Your task to perform on an android device: Open privacy settings Image 0: 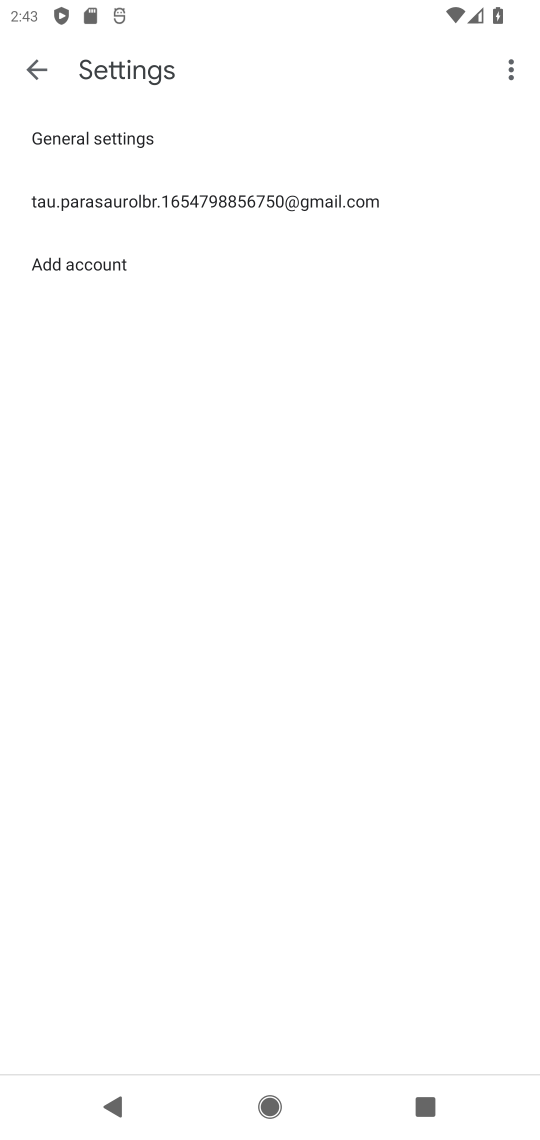
Step 0: press home button
Your task to perform on an android device: Open privacy settings Image 1: 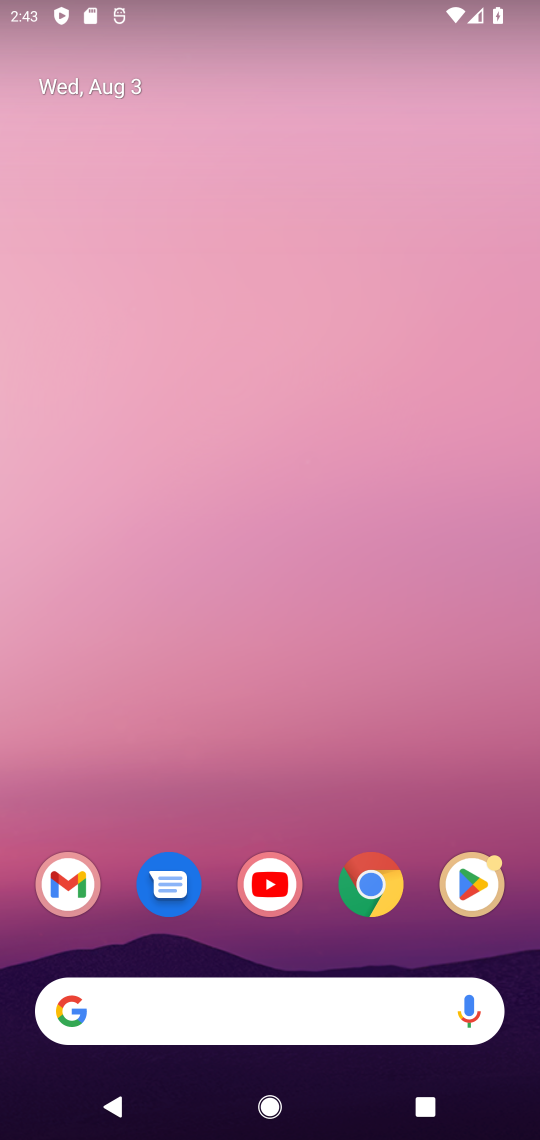
Step 1: drag from (217, 953) to (255, 180)
Your task to perform on an android device: Open privacy settings Image 2: 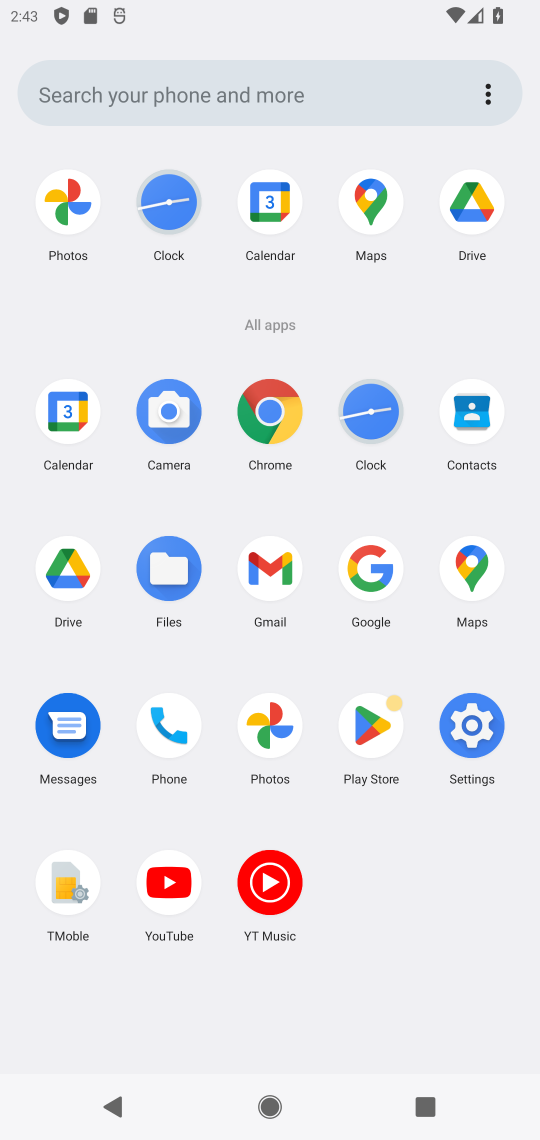
Step 2: click (486, 728)
Your task to perform on an android device: Open privacy settings Image 3: 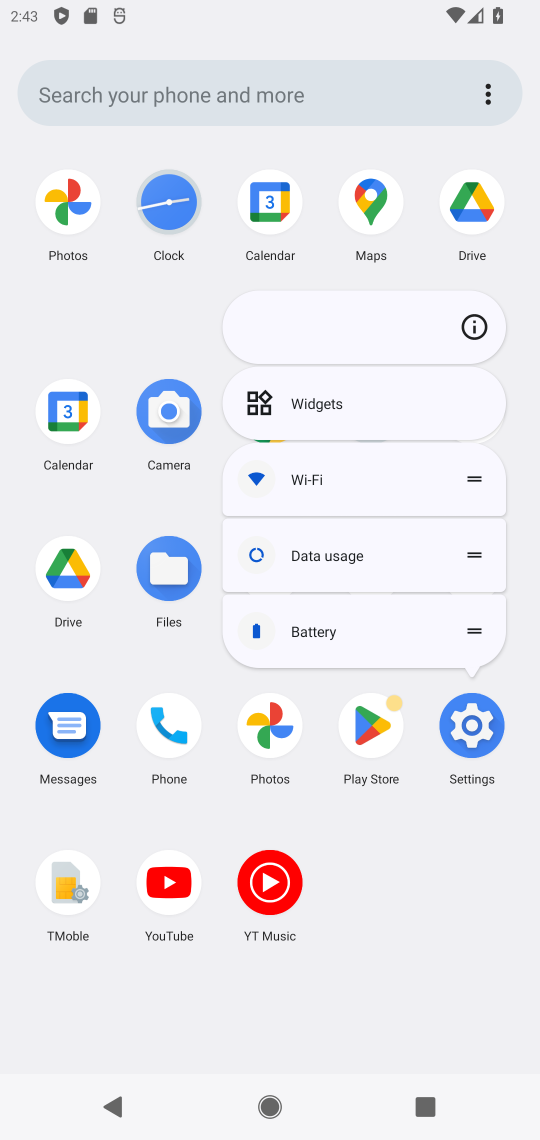
Step 3: click (475, 731)
Your task to perform on an android device: Open privacy settings Image 4: 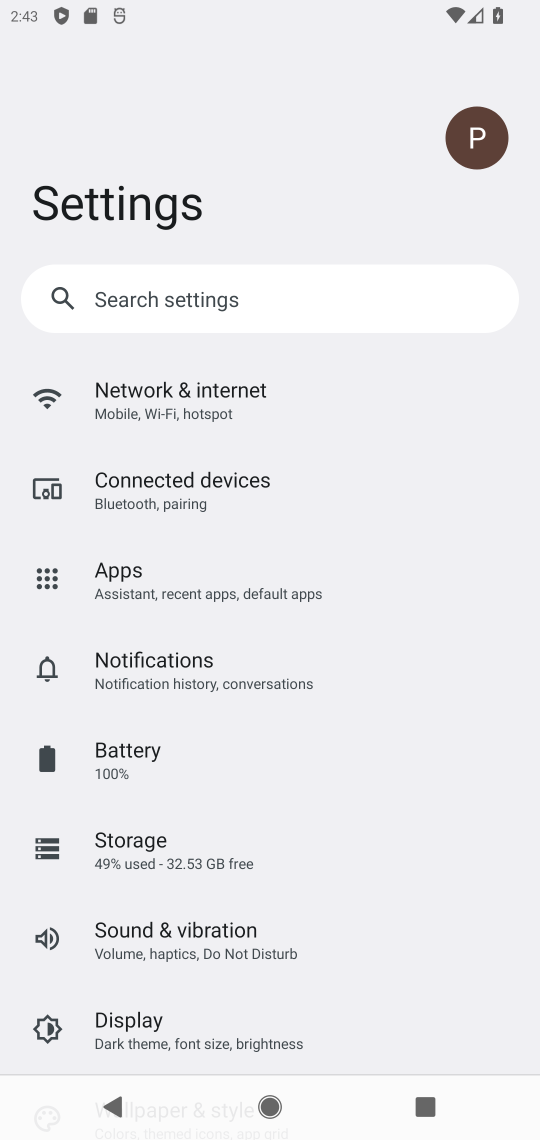
Step 4: drag from (187, 970) to (242, 532)
Your task to perform on an android device: Open privacy settings Image 5: 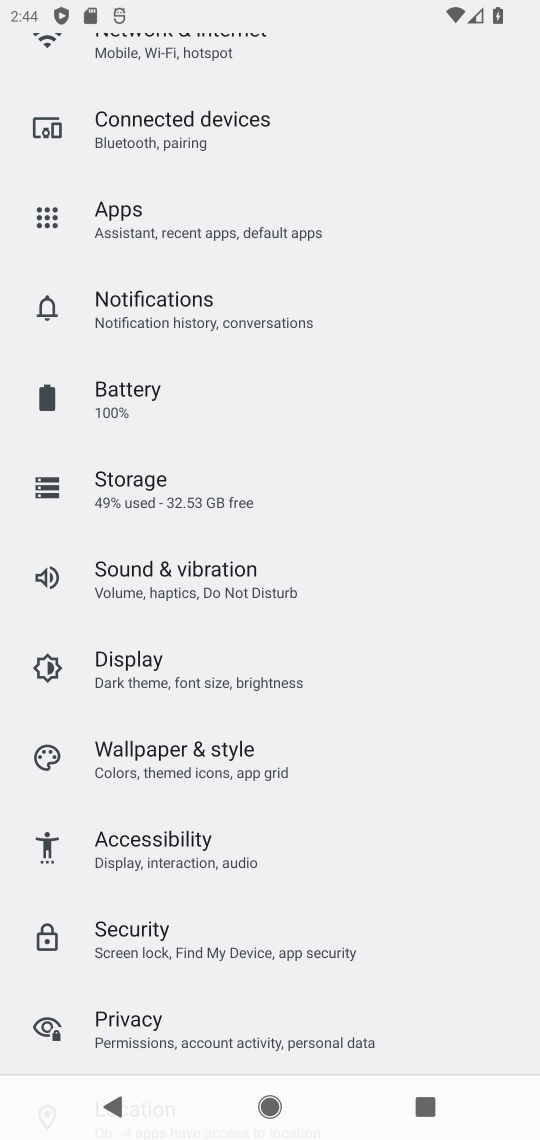
Step 5: click (180, 1004)
Your task to perform on an android device: Open privacy settings Image 6: 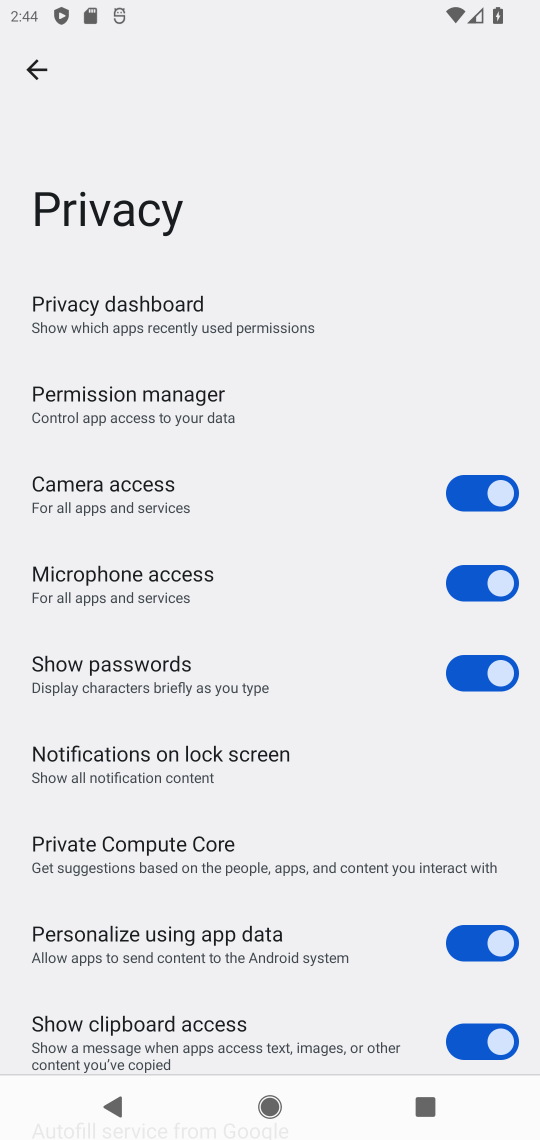
Step 6: task complete